Your task to perform on an android device: open device folders in google photos Image 0: 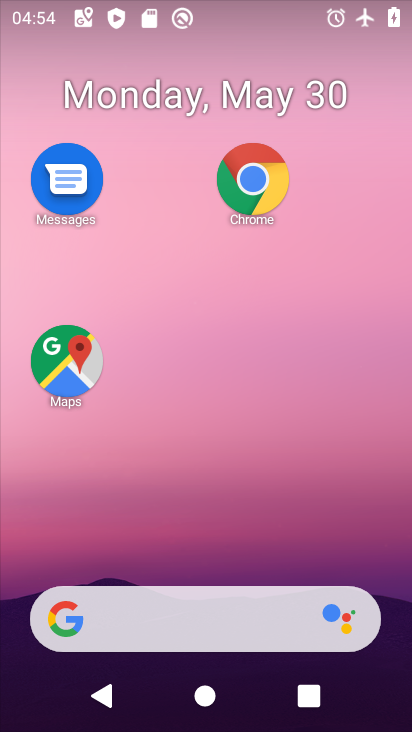
Step 0: drag from (195, 485) to (200, 223)
Your task to perform on an android device: open device folders in google photos Image 1: 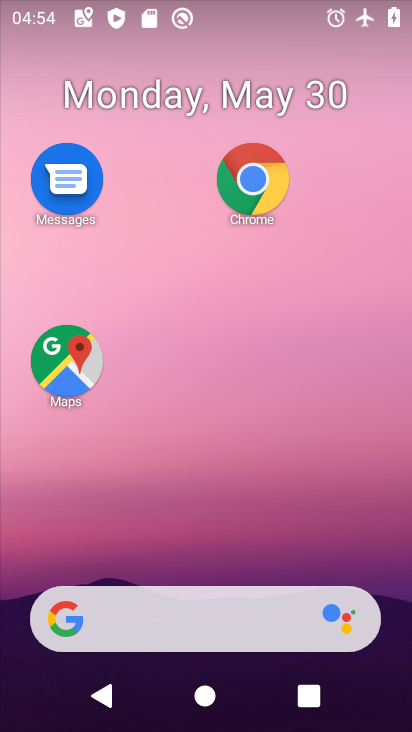
Step 1: drag from (192, 512) to (140, 58)
Your task to perform on an android device: open device folders in google photos Image 2: 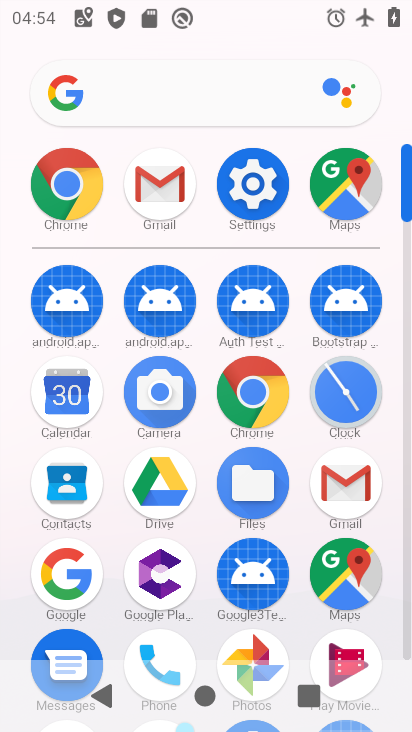
Step 2: click (238, 645)
Your task to perform on an android device: open device folders in google photos Image 3: 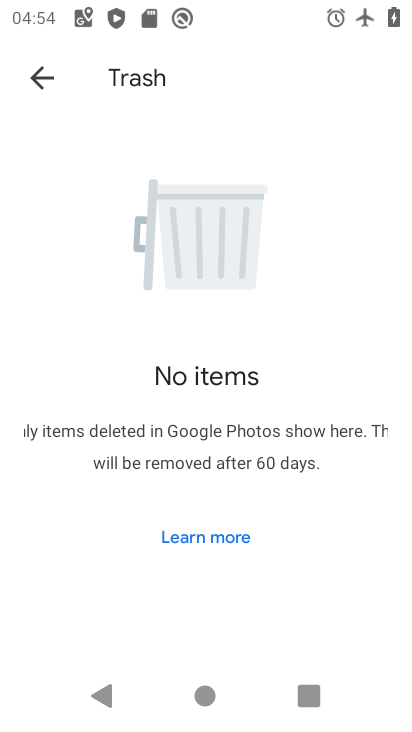
Step 3: click (51, 82)
Your task to perform on an android device: open device folders in google photos Image 4: 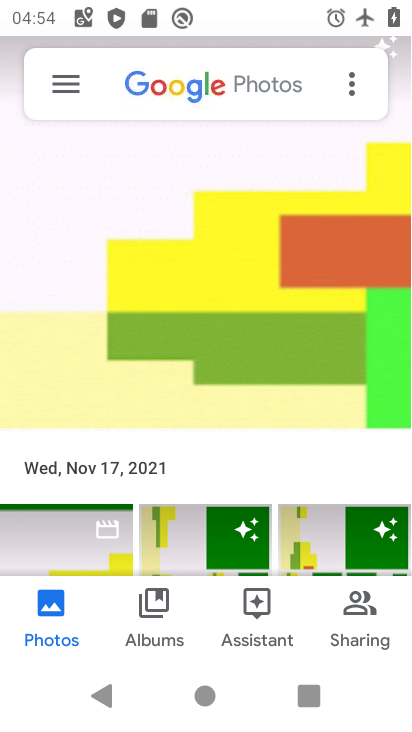
Step 4: click (73, 93)
Your task to perform on an android device: open device folders in google photos Image 5: 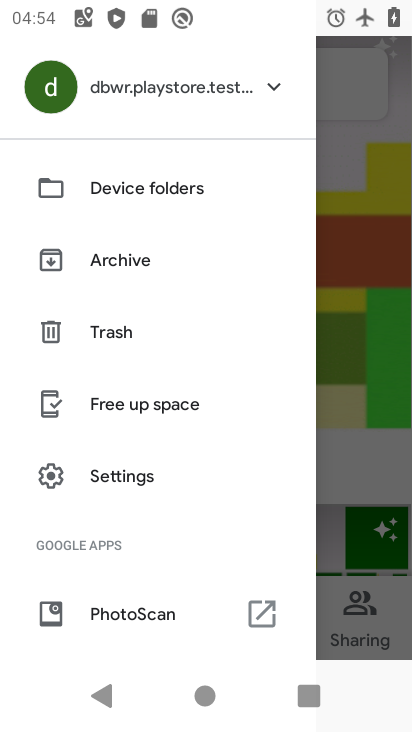
Step 5: click (143, 197)
Your task to perform on an android device: open device folders in google photos Image 6: 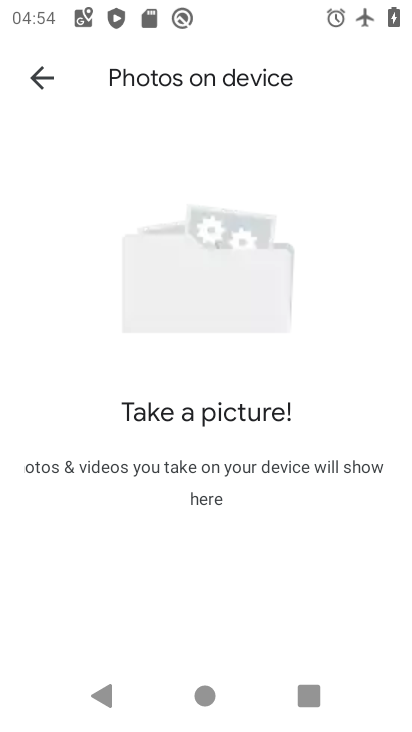
Step 6: task complete